Your task to perform on an android device: move a message to another label in the gmail app Image 0: 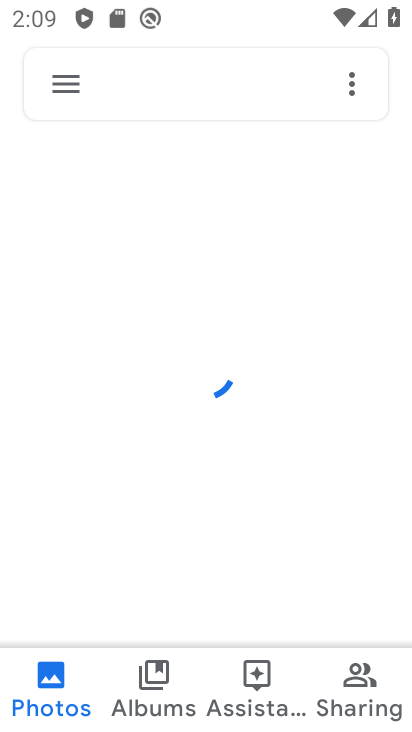
Step 0: press home button
Your task to perform on an android device: move a message to another label in the gmail app Image 1: 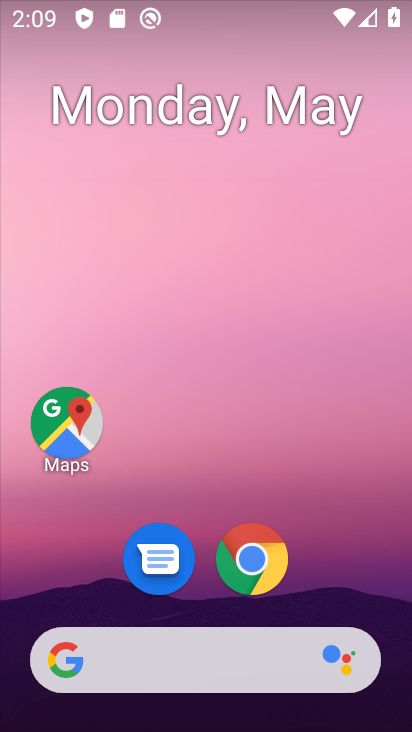
Step 1: drag from (241, 698) to (232, 178)
Your task to perform on an android device: move a message to another label in the gmail app Image 2: 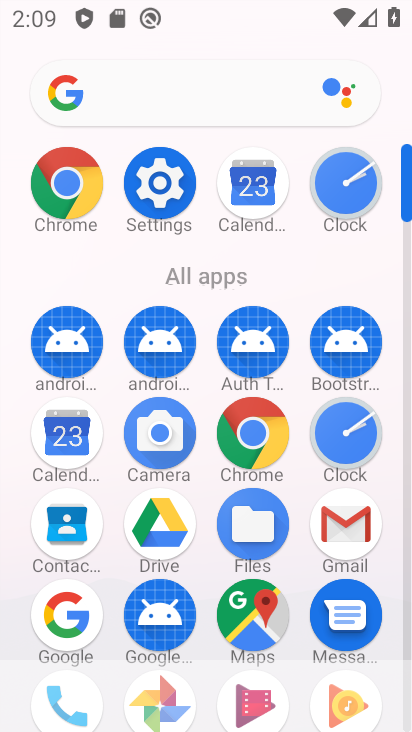
Step 2: click (345, 540)
Your task to perform on an android device: move a message to another label in the gmail app Image 3: 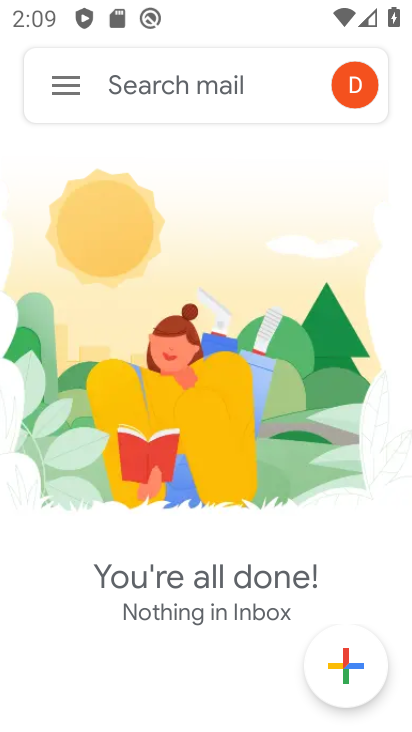
Step 3: click (69, 83)
Your task to perform on an android device: move a message to another label in the gmail app Image 4: 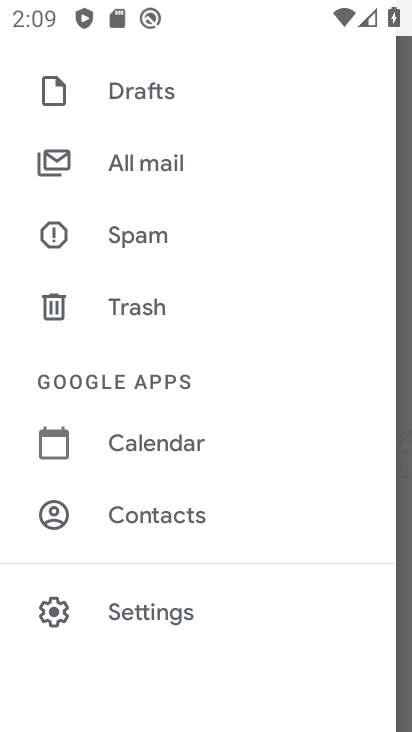
Step 4: click (148, 617)
Your task to perform on an android device: move a message to another label in the gmail app Image 5: 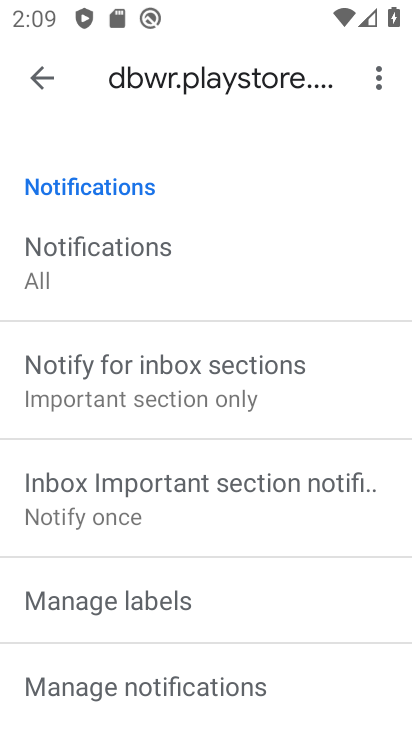
Step 5: drag from (144, 627) to (163, 583)
Your task to perform on an android device: move a message to another label in the gmail app Image 6: 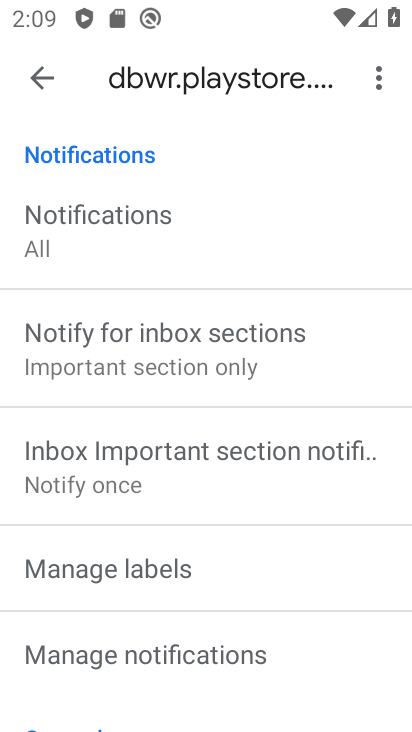
Step 6: click (158, 577)
Your task to perform on an android device: move a message to another label in the gmail app Image 7: 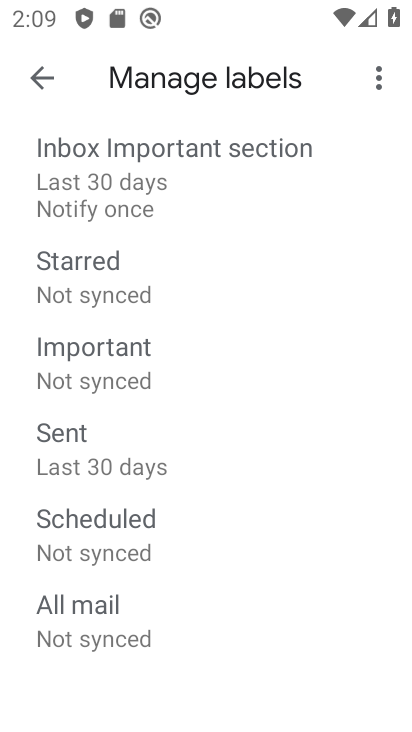
Step 7: click (127, 245)
Your task to perform on an android device: move a message to another label in the gmail app Image 8: 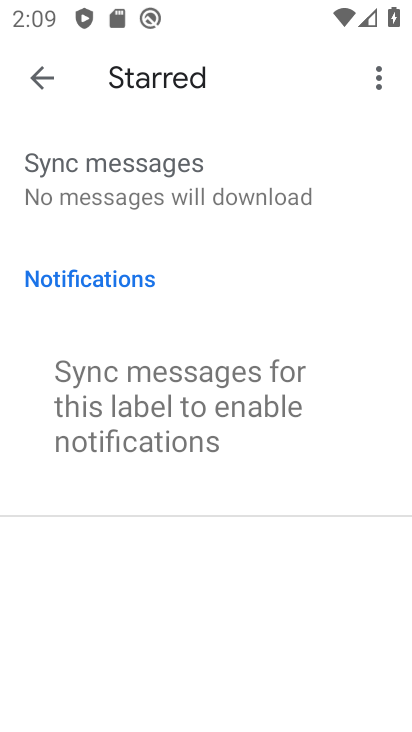
Step 8: task complete